Your task to perform on an android device: set default search engine in the chrome app Image 0: 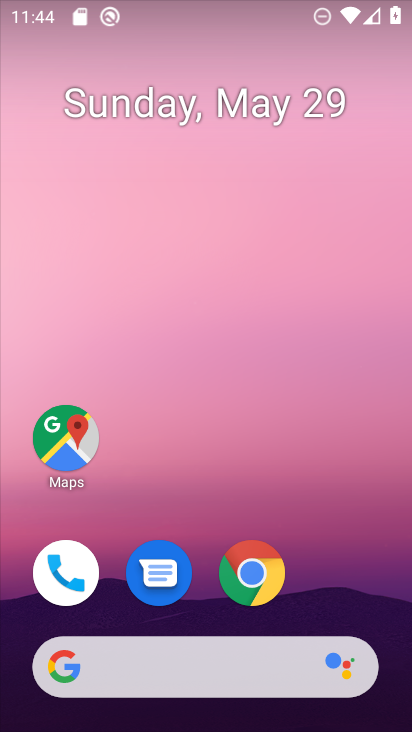
Step 0: click (250, 592)
Your task to perform on an android device: set default search engine in the chrome app Image 1: 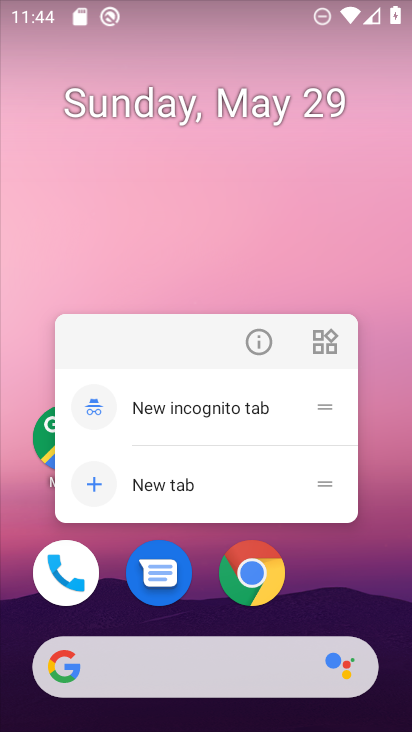
Step 1: click (254, 555)
Your task to perform on an android device: set default search engine in the chrome app Image 2: 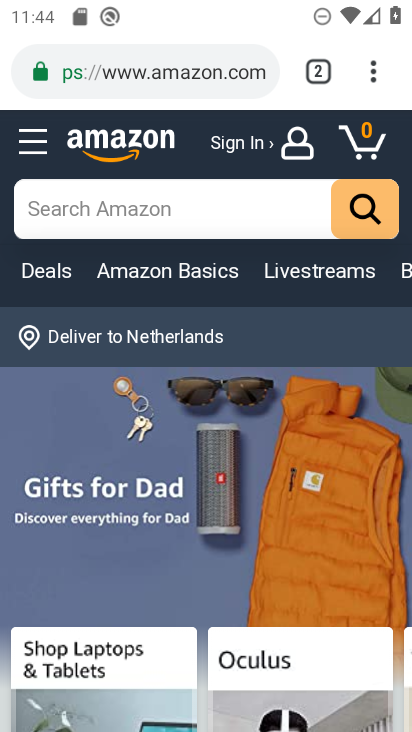
Step 2: drag from (375, 64) to (210, 546)
Your task to perform on an android device: set default search engine in the chrome app Image 3: 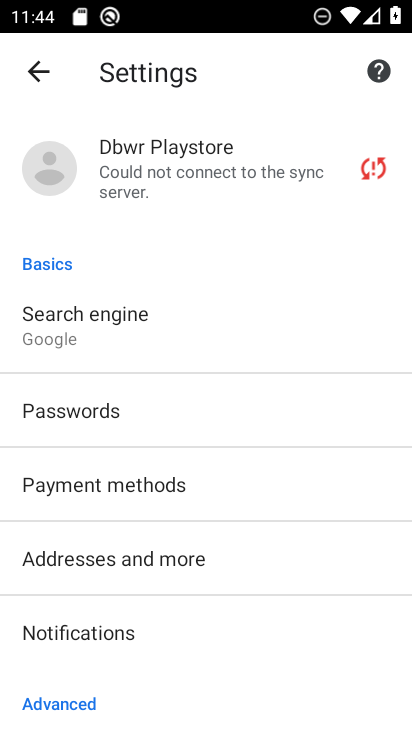
Step 3: click (161, 322)
Your task to perform on an android device: set default search engine in the chrome app Image 4: 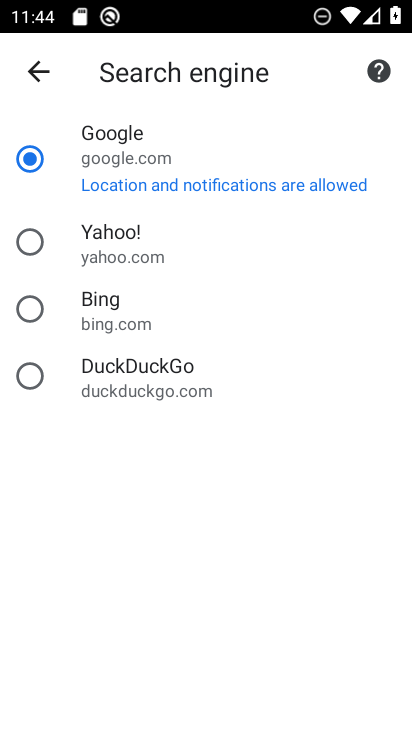
Step 4: click (34, 156)
Your task to perform on an android device: set default search engine in the chrome app Image 5: 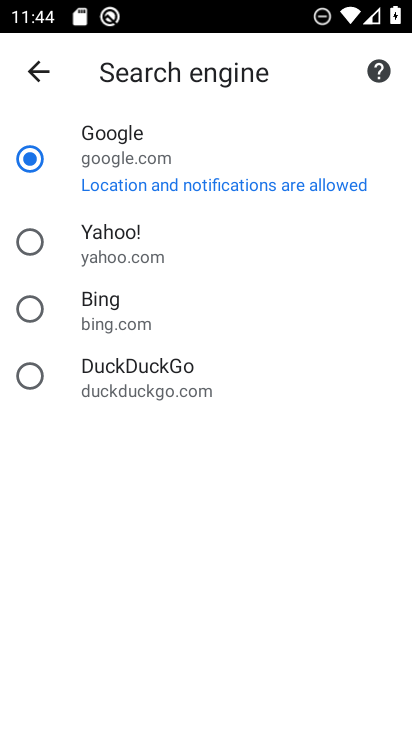
Step 5: task complete